Your task to perform on an android device: turn on javascript in the chrome app Image 0: 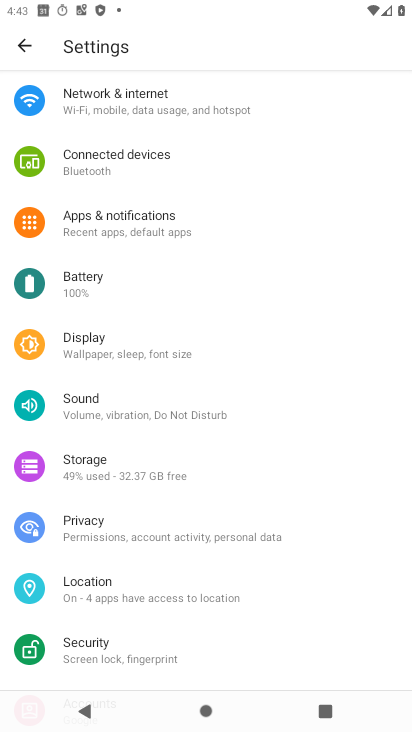
Step 0: press home button
Your task to perform on an android device: turn on javascript in the chrome app Image 1: 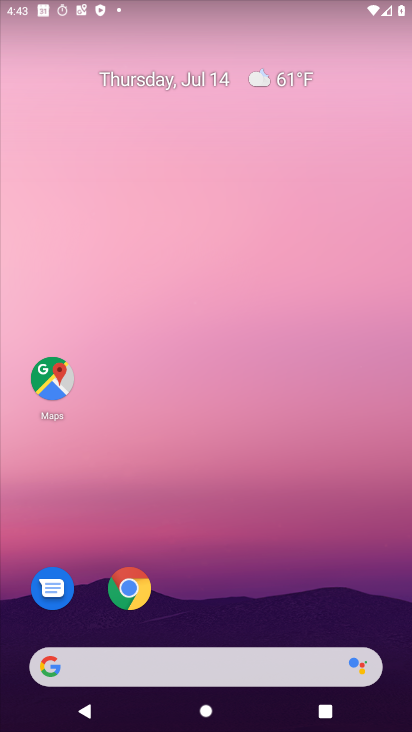
Step 1: click (133, 590)
Your task to perform on an android device: turn on javascript in the chrome app Image 2: 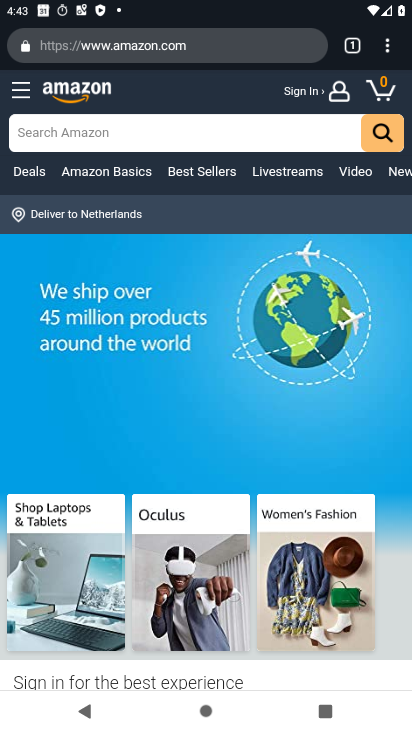
Step 2: click (389, 48)
Your task to perform on an android device: turn on javascript in the chrome app Image 3: 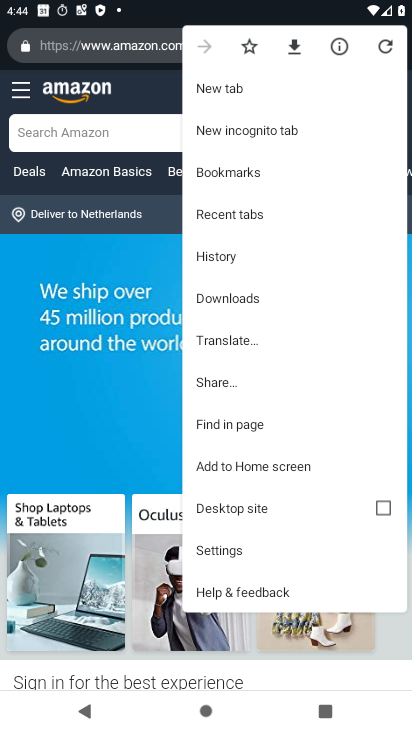
Step 3: click (228, 554)
Your task to perform on an android device: turn on javascript in the chrome app Image 4: 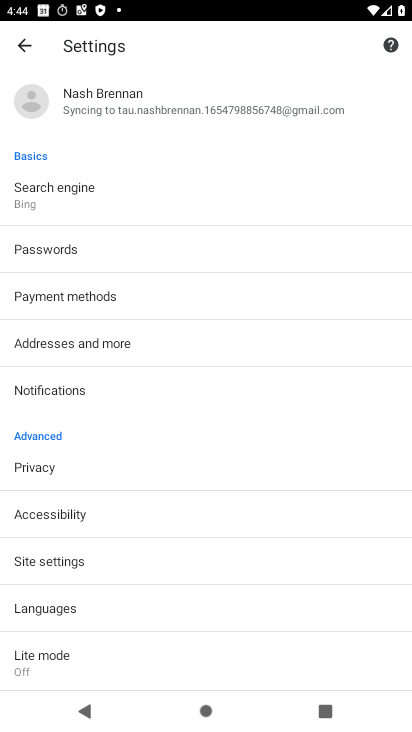
Step 4: click (57, 559)
Your task to perform on an android device: turn on javascript in the chrome app Image 5: 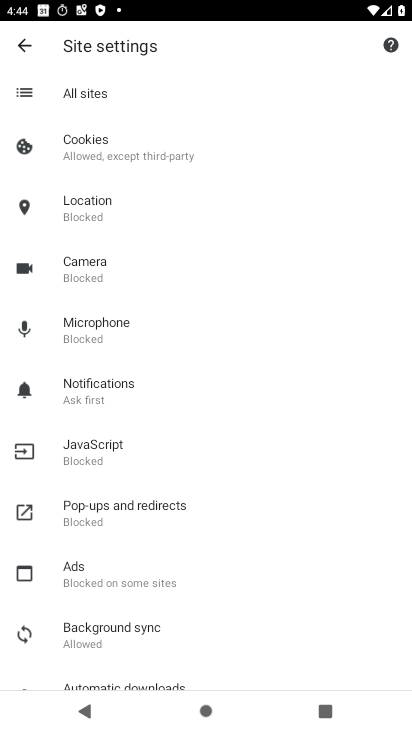
Step 5: click (97, 439)
Your task to perform on an android device: turn on javascript in the chrome app Image 6: 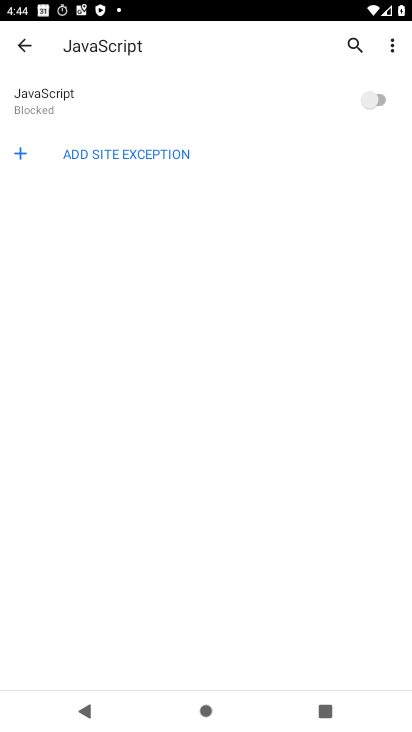
Step 6: click (369, 102)
Your task to perform on an android device: turn on javascript in the chrome app Image 7: 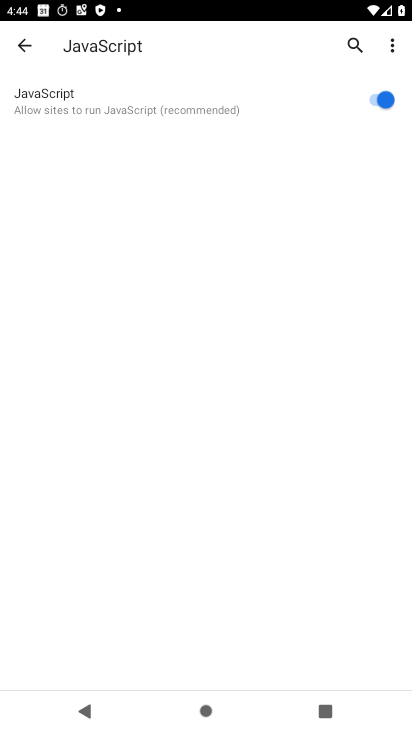
Step 7: task complete